Your task to perform on an android device: toggle show notifications on the lock screen Image 0: 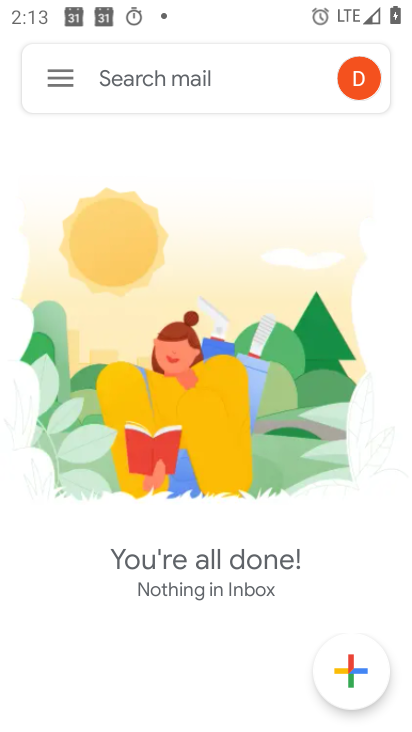
Step 0: press home button
Your task to perform on an android device: toggle show notifications on the lock screen Image 1: 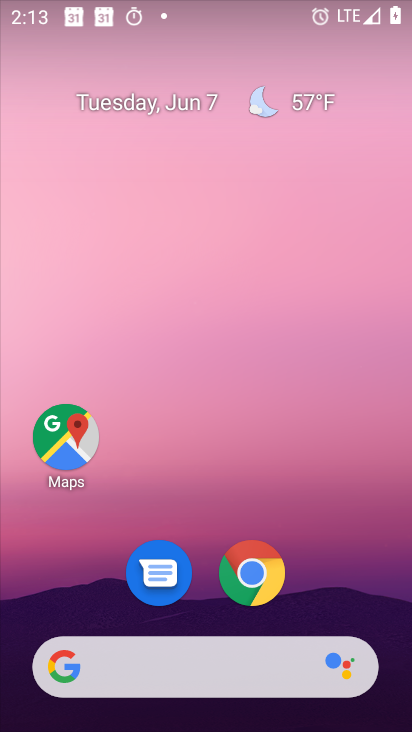
Step 1: drag from (292, 598) to (309, 27)
Your task to perform on an android device: toggle show notifications on the lock screen Image 2: 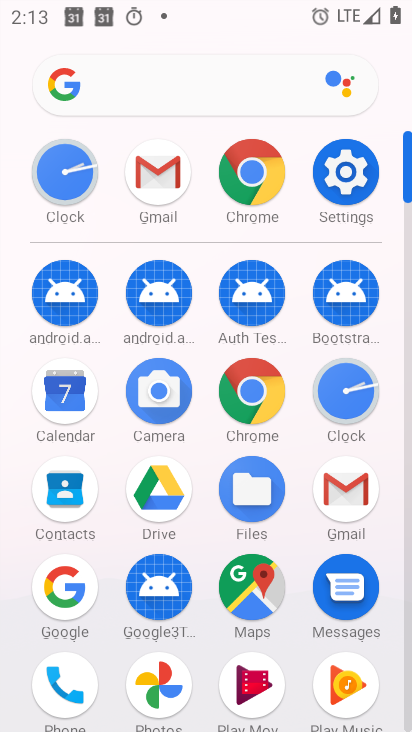
Step 2: click (341, 166)
Your task to perform on an android device: toggle show notifications on the lock screen Image 3: 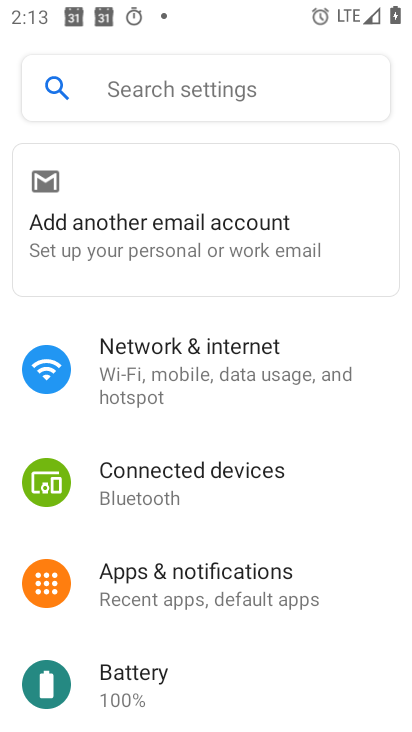
Step 3: drag from (240, 607) to (235, 226)
Your task to perform on an android device: toggle show notifications on the lock screen Image 4: 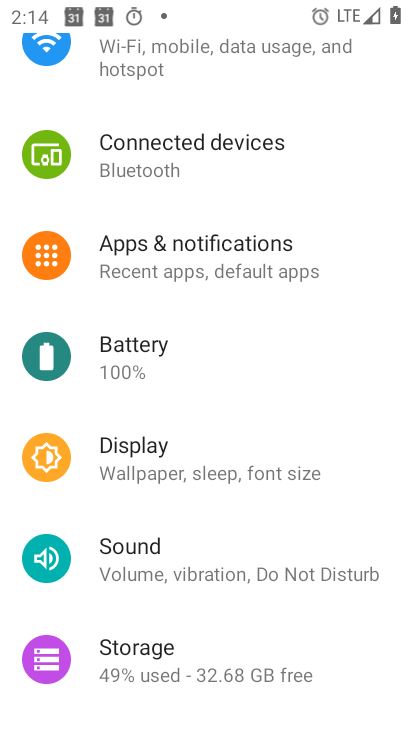
Step 4: click (202, 259)
Your task to perform on an android device: toggle show notifications on the lock screen Image 5: 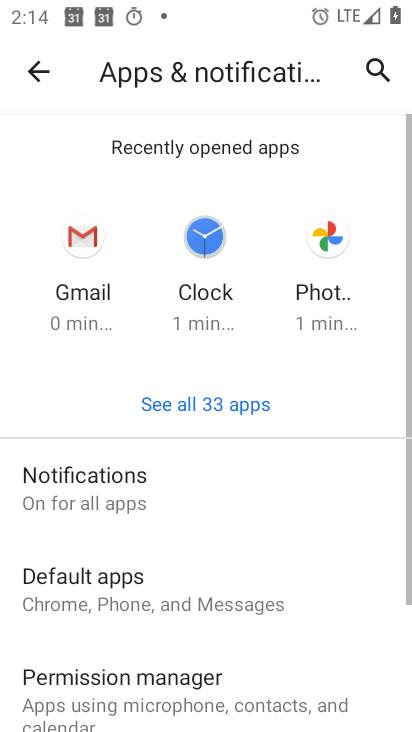
Step 5: drag from (279, 640) to (275, 232)
Your task to perform on an android device: toggle show notifications on the lock screen Image 6: 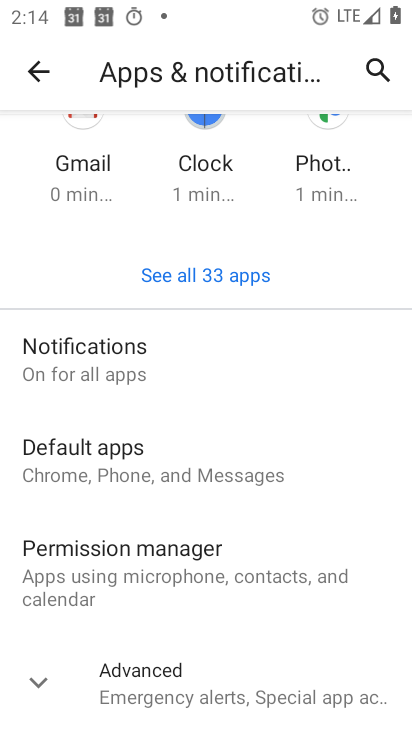
Step 6: drag from (279, 613) to (262, 264)
Your task to perform on an android device: toggle show notifications on the lock screen Image 7: 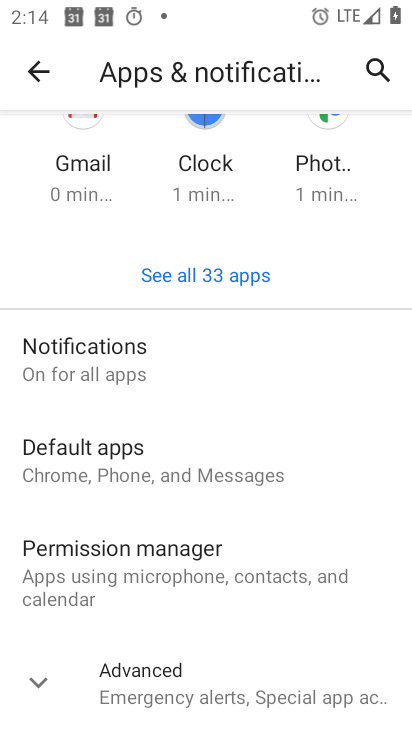
Step 7: click (169, 686)
Your task to perform on an android device: toggle show notifications on the lock screen Image 8: 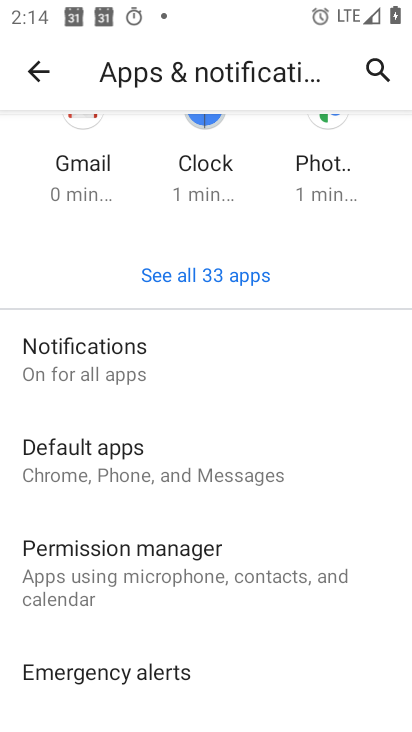
Step 8: click (123, 365)
Your task to perform on an android device: toggle show notifications on the lock screen Image 9: 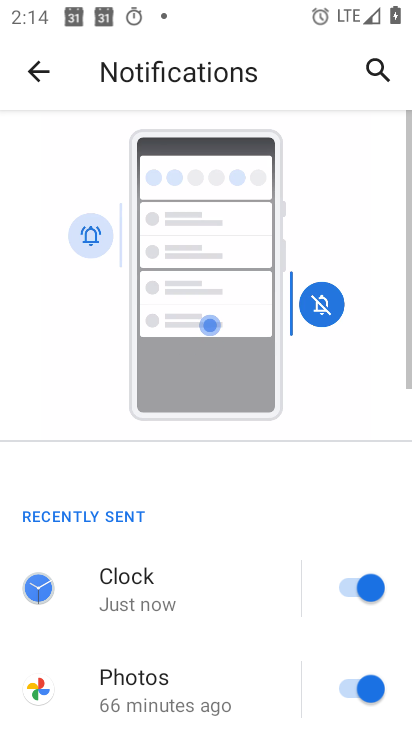
Step 9: drag from (265, 650) to (266, 168)
Your task to perform on an android device: toggle show notifications on the lock screen Image 10: 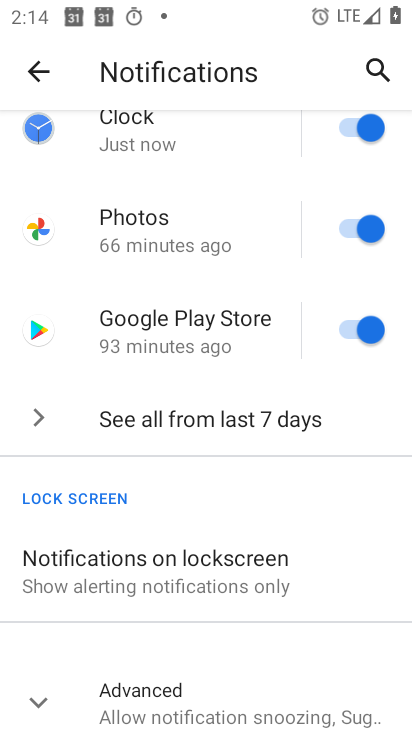
Step 10: click (199, 553)
Your task to perform on an android device: toggle show notifications on the lock screen Image 11: 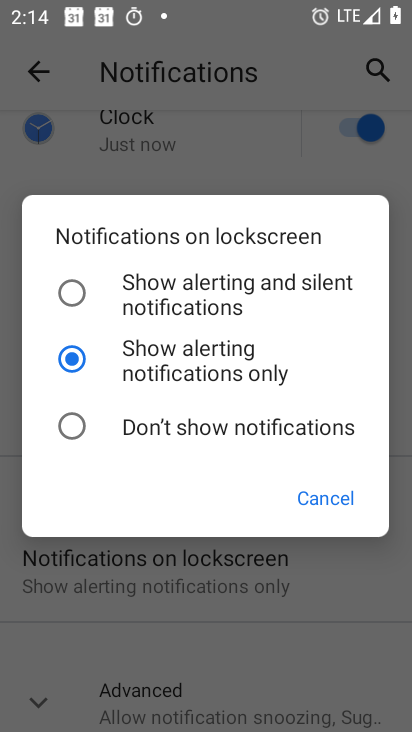
Step 11: click (168, 416)
Your task to perform on an android device: toggle show notifications on the lock screen Image 12: 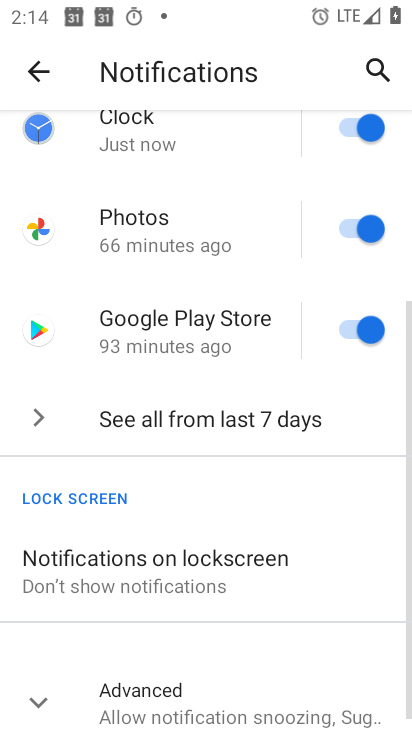
Step 12: task complete